Your task to perform on an android device: uninstall "Move to iOS" Image 0: 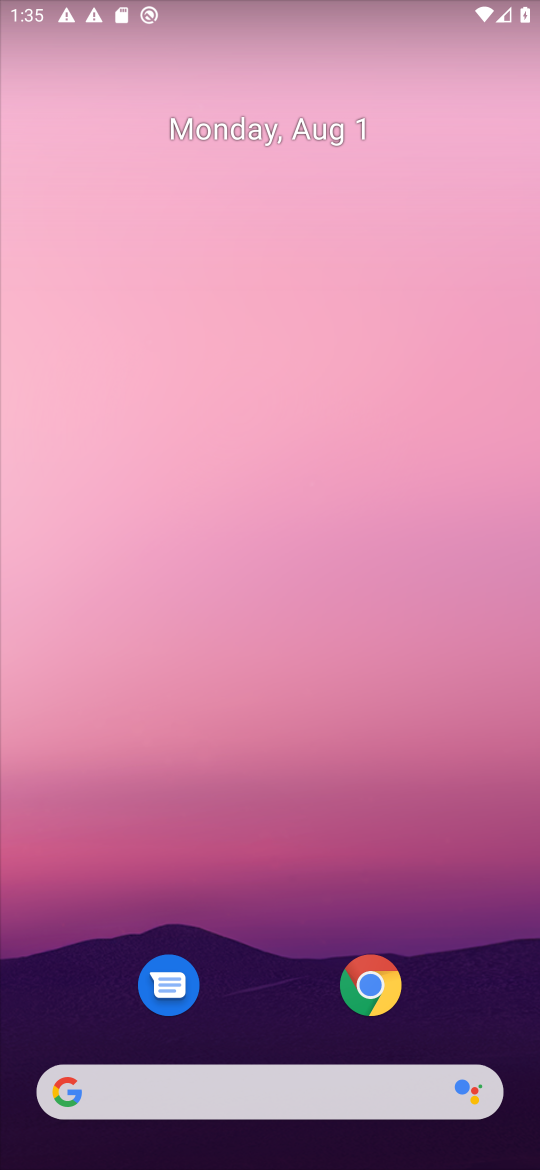
Step 0: drag from (320, 1162) to (285, 57)
Your task to perform on an android device: uninstall "Move to iOS" Image 1: 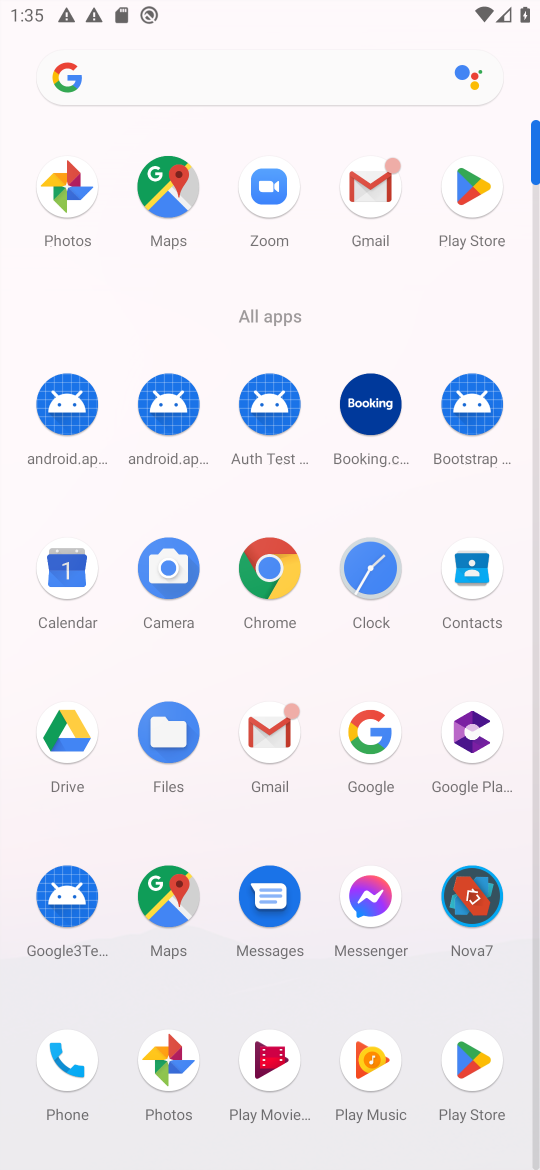
Step 1: click (461, 1056)
Your task to perform on an android device: uninstall "Move to iOS" Image 2: 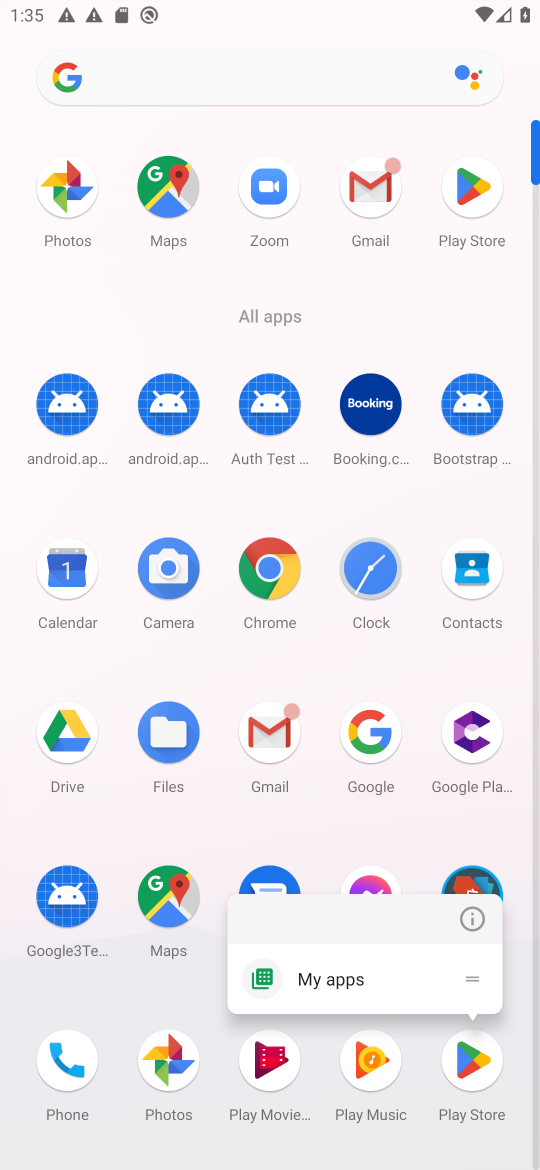
Step 2: click (466, 1045)
Your task to perform on an android device: uninstall "Move to iOS" Image 3: 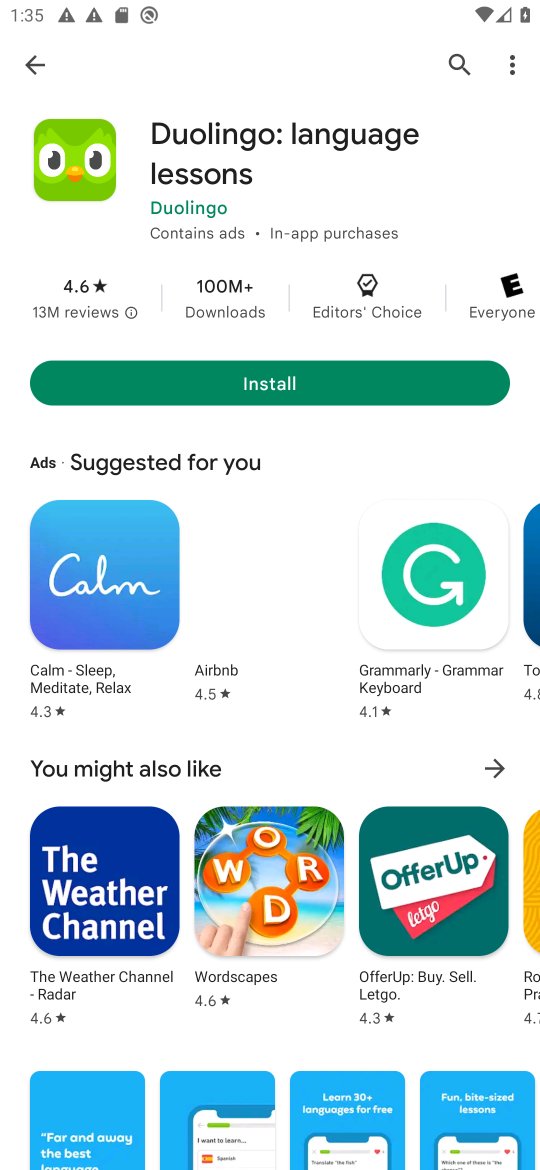
Step 3: click (461, 53)
Your task to perform on an android device: uninstall "Move to iOS" Image 4: 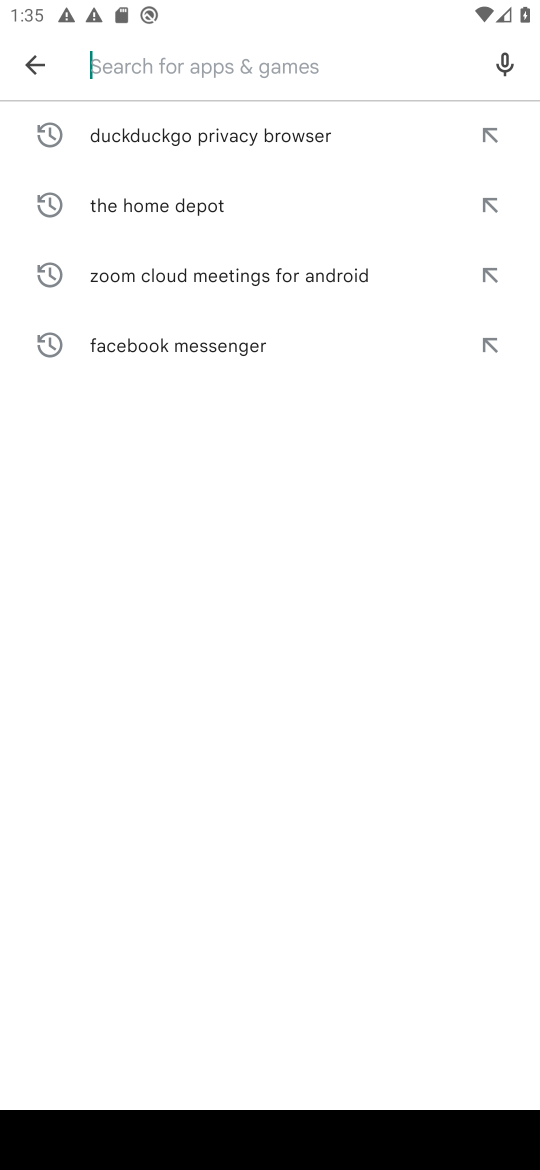
Step 4: type "Move to iOS"
Your task to perform on an android device: uninstall "Move to iOS" Image 5: 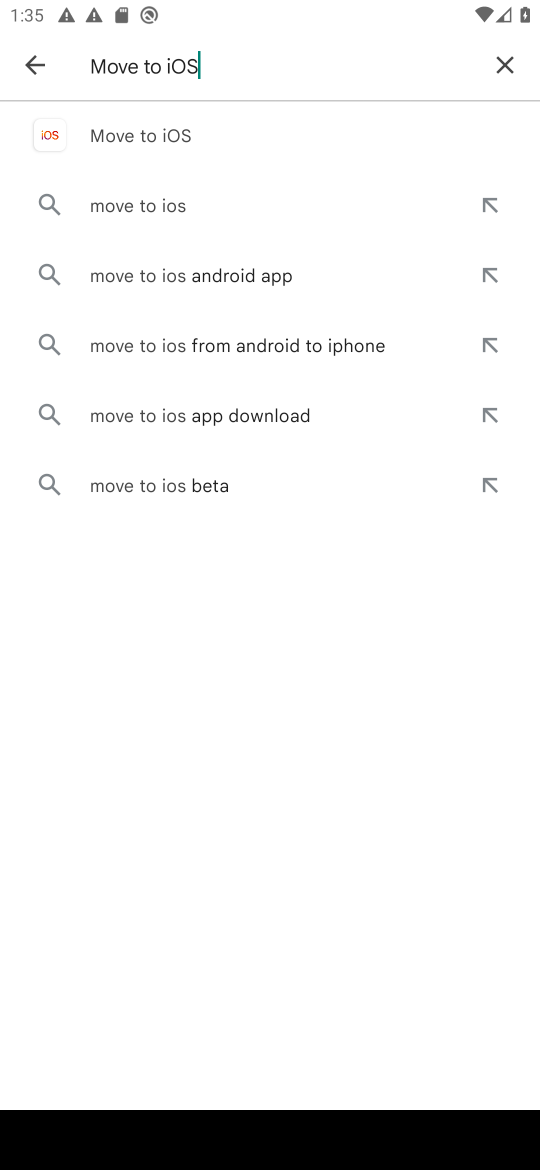
Step 5: click (165, 131)
Your task to perform on an android device: uninstall "Move to iOS" Image 6: 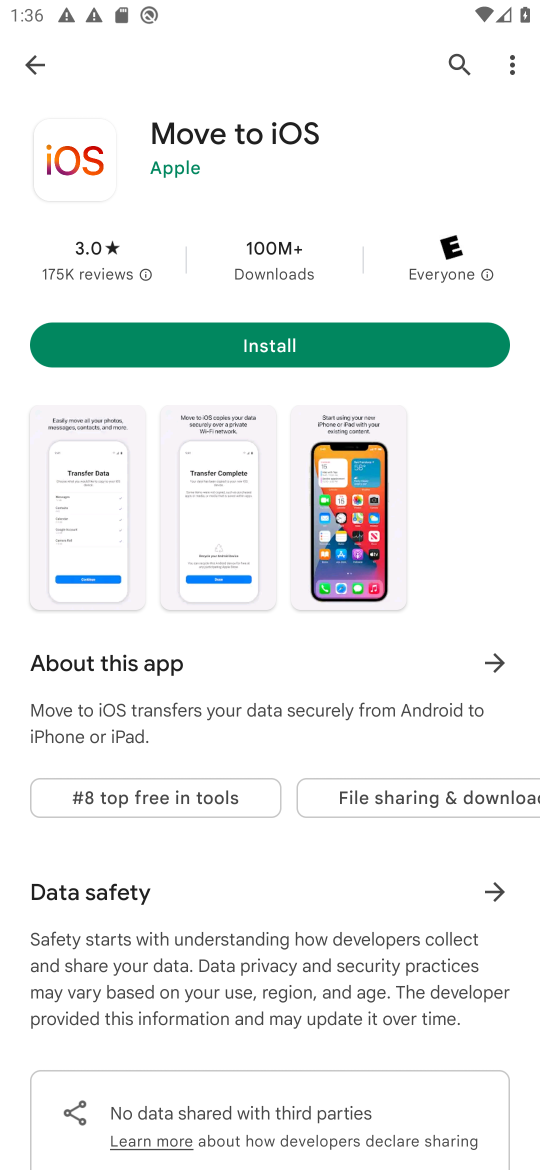
Step 6: task complete